Your task to perform on an android device: turn off wifi Image 0: 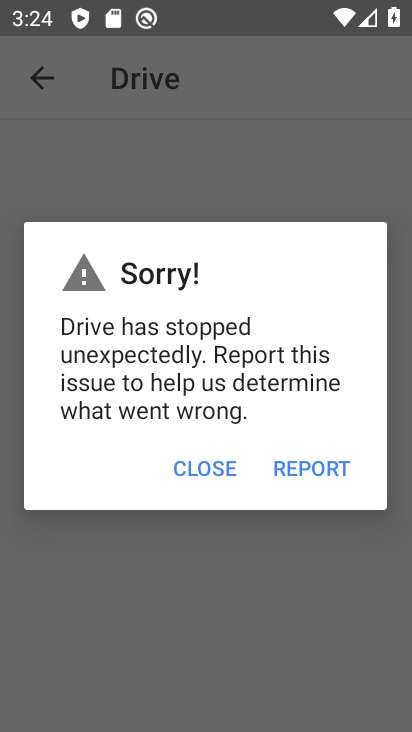
Step 0: press home button
Your task to perform on an android device: turn off wifi Image 1: 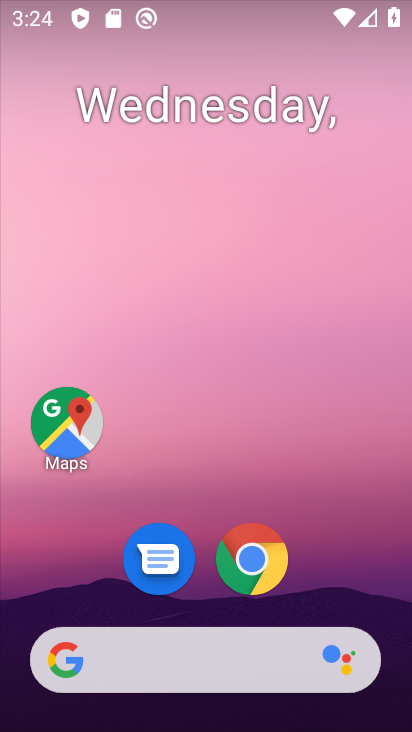
Step 1: drag from (307, 284) to (287, 76)
Your task to perform on an android device: turn off wifi Image 2: 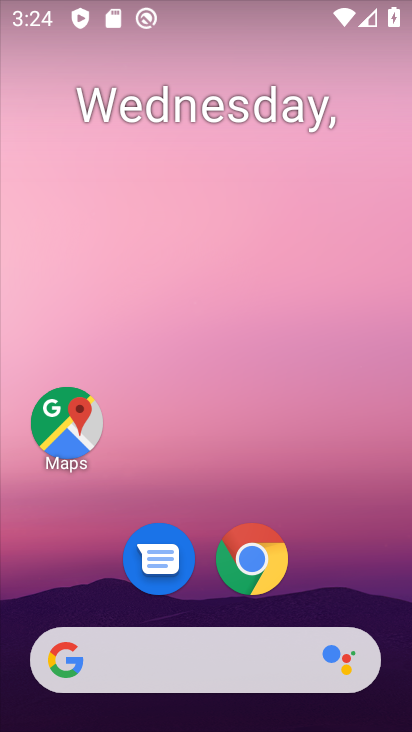
Step 2: drag from (328, 403) to (334, 16)
Your task to perform on an android device: turn off wifi Image 3: 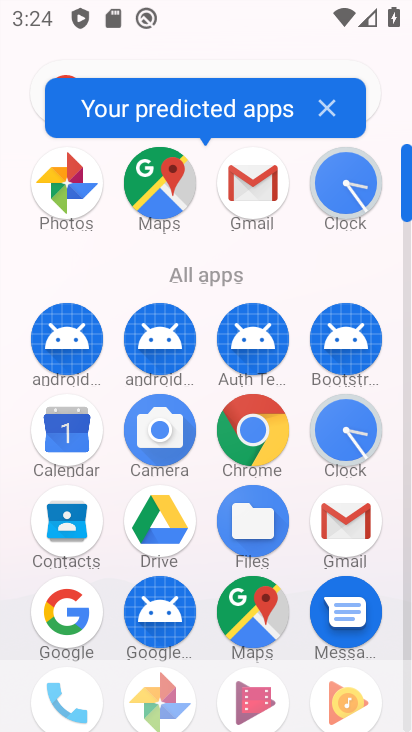
Step 3: drag from (298, 449) to (302, 67)
Your task to perform on an android device: turn off wifi Image 4: 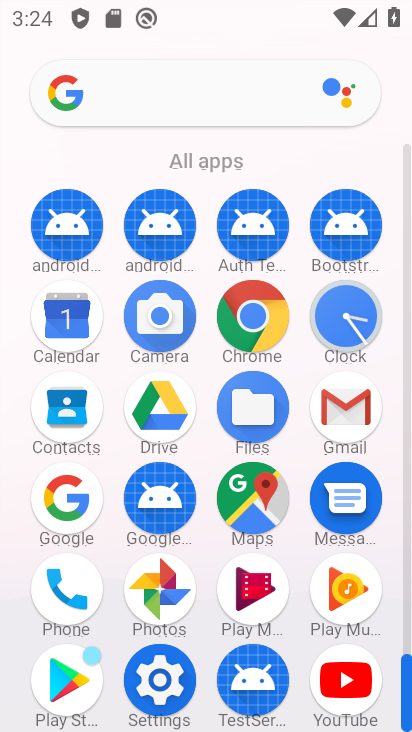
Step 4: click (156, 698)
Your task to perform on an android device: turn off wifi Image 5: 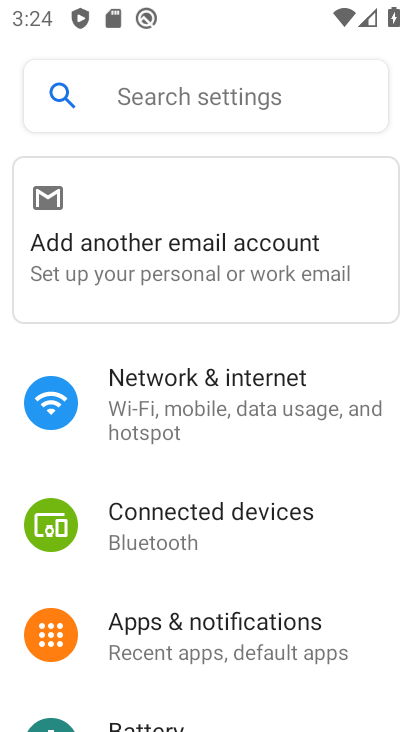
Step 5: click (182, 374)
Your task to perform on an android device: turn off wifi Image 6: 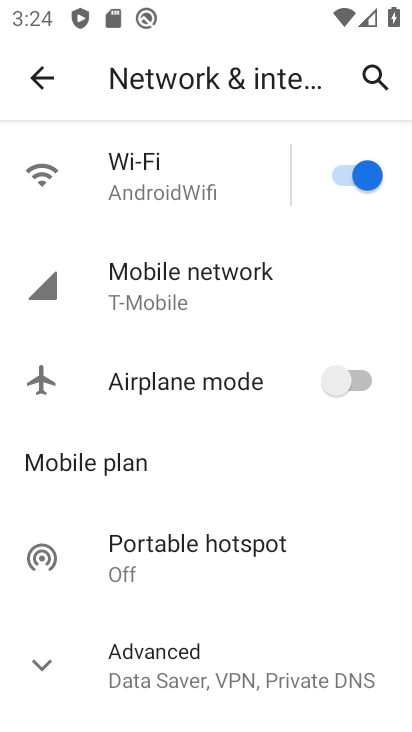
Step 6: click (350, 163)
Your task to perform on an android device: turn off wifi Image 7: 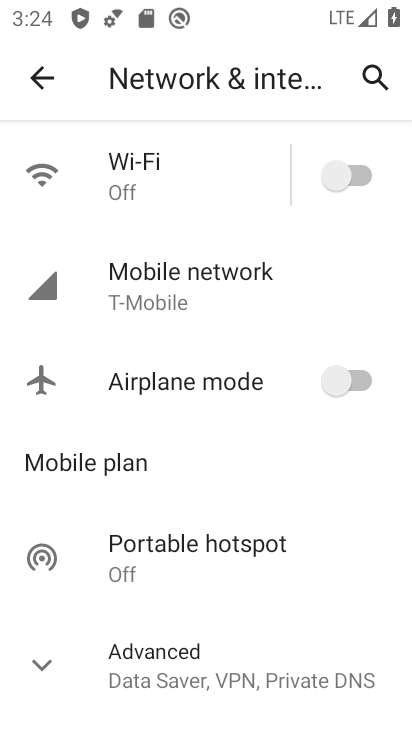
Step 7: task complete